Your task to perform on an android device: Open Youtube and go to the subscriptions tab Image 0: 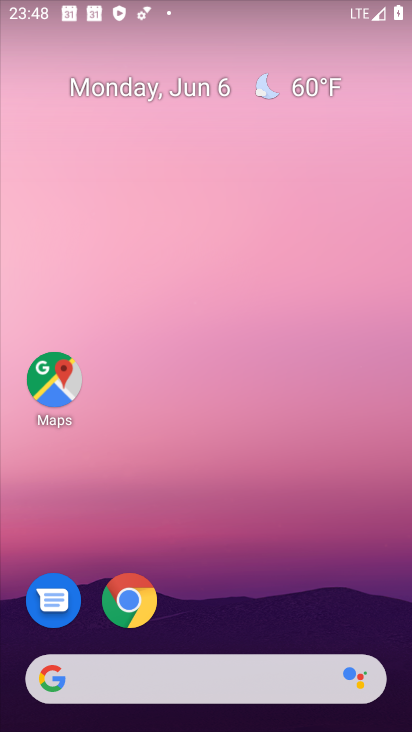
Step 0: drag from (252, 726) to (197, 128)
Your task to perform on an android device: Open Youtube and go to the subscriptions tab Image 1: 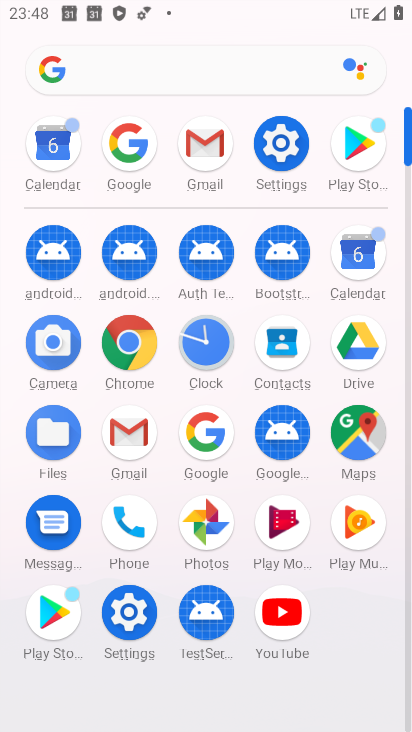
Step 1: click (282, 615)
Your task to perform on an android device: Open Youtube and go to the subscriptions tab Image 2: 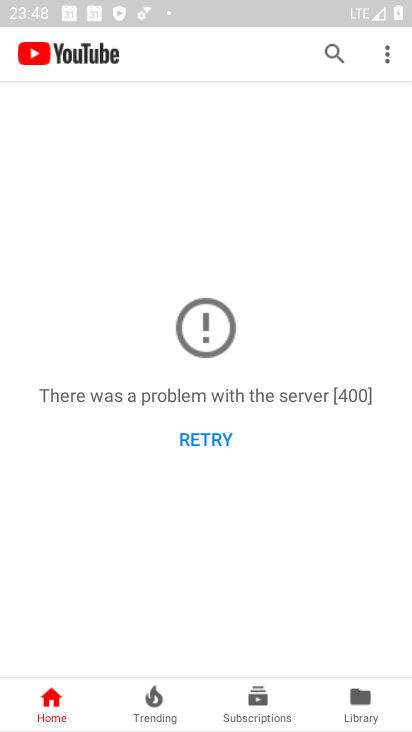
Step 2: click (271, 693)
Your task to perform on an android device: Open Youtube and go to the subscriptions tab Image 3: 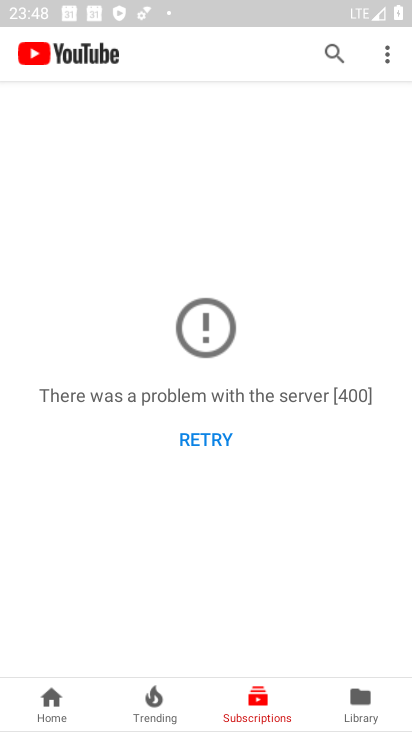
Step 3: task complete